Your task to perform on an android device: open a bookmark in the chrome app Image 0: 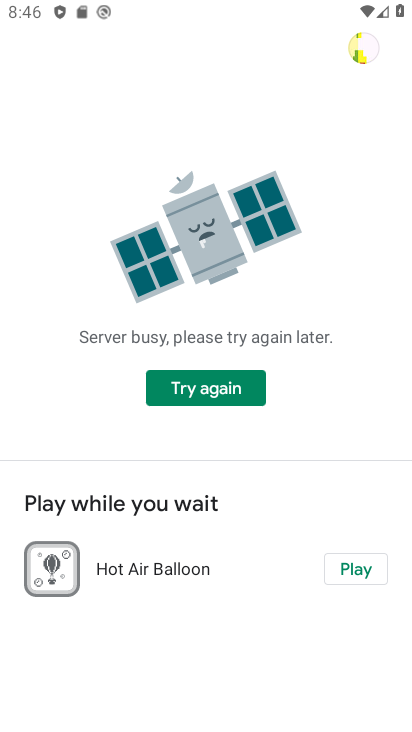
Step 0: press home button
Your task to perform on an android device: open a bookmark in the chrome app Image 1: 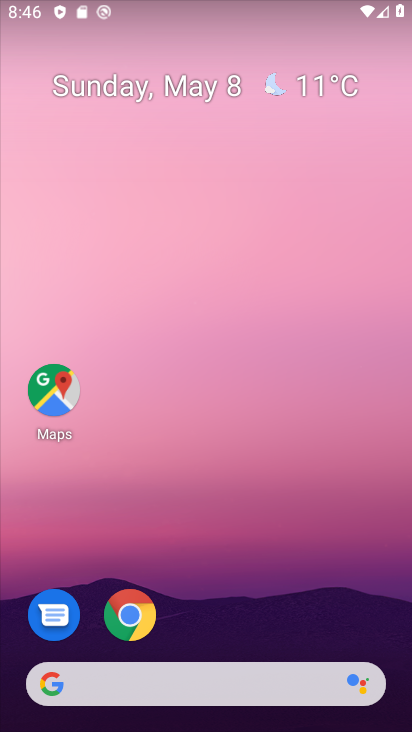
Step 1: click (143, 621)
Your task to perform on an android device: open a bookmark in the chrome app Image 2: 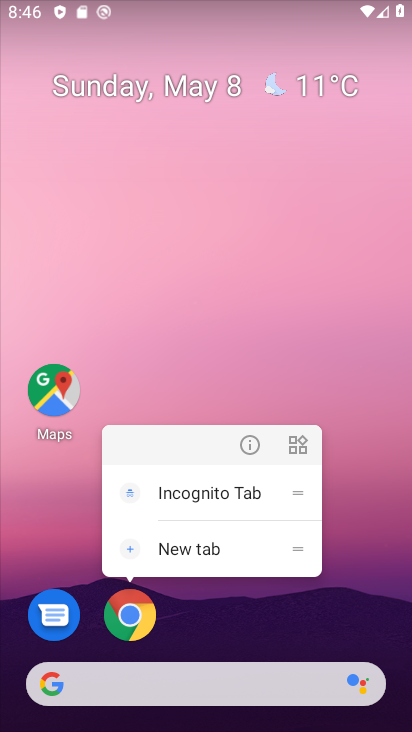
Step 2: click (130, 618)
Your task to perform on an android device: open a bookmark in the chrome app Image 3: 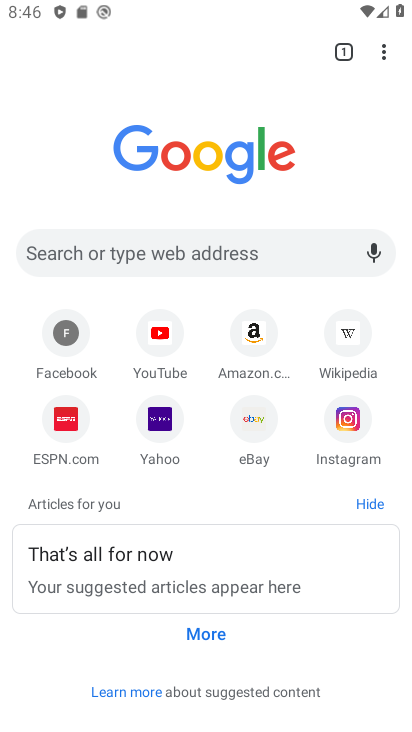
Step 3: click (383, 48)
Your task to perform on an android device: open a bookmark in the chrome app Image 4: 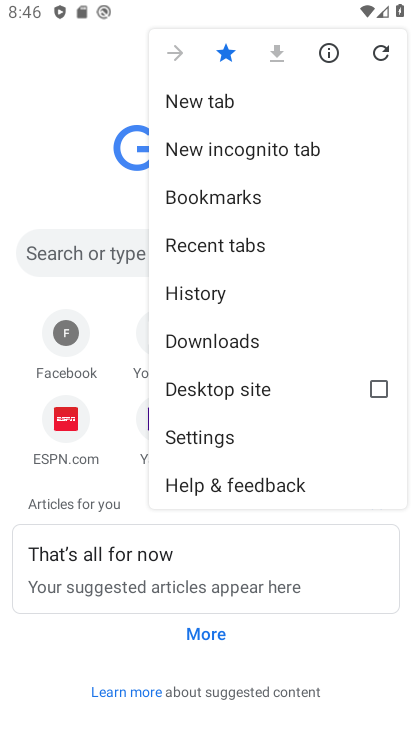
Step 4: click (200, 198)
Your task to perform on an android device: open a bookmark in the chrome app Image 5: 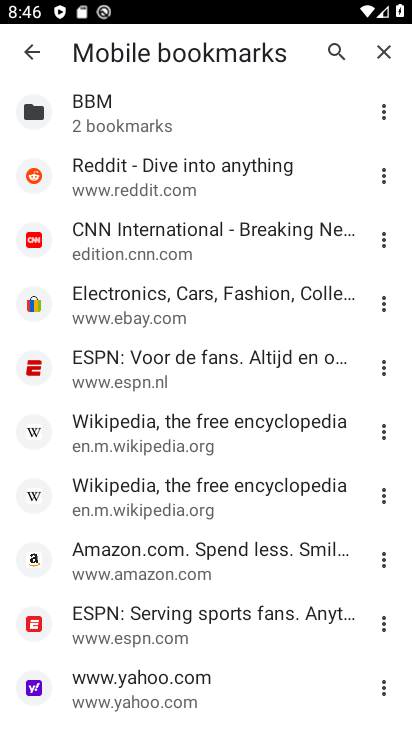
Step 5: task complete